Your task to perform on an android device: change the clock display to show seconds Image 0: 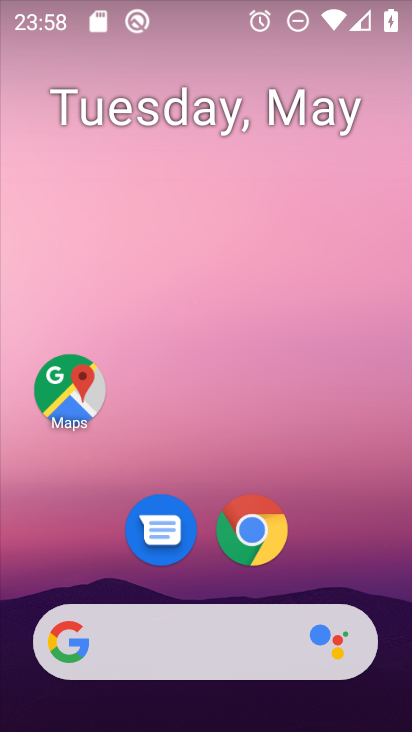
Step 0: drag from (377, 541) to (334, 108)
Your task to perform on an android device: change the clock display to show seconds Image 1: 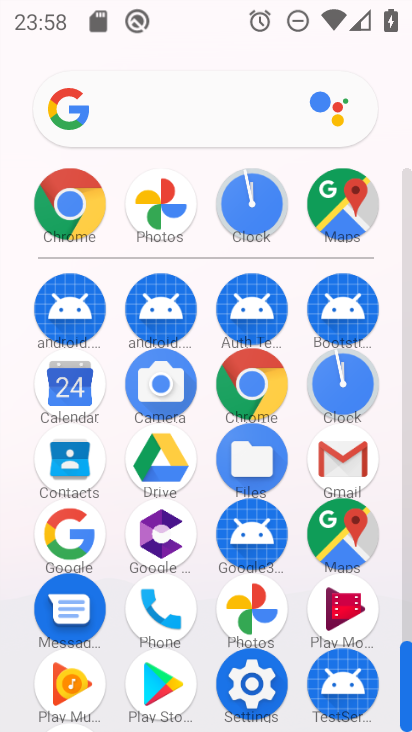
Step 1: click (351, 380)
Your task to perform on an android device: change the clock display to show seconds Image 2: 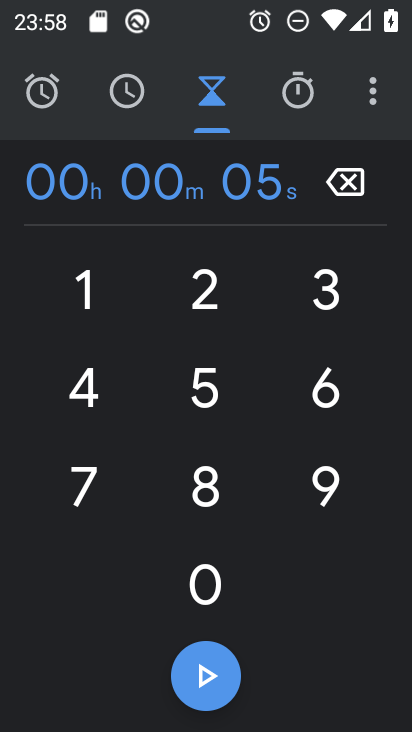
Step 2: click (373, 88)
Your task to perform on an android device: change the clock display to show seconds Image 3: 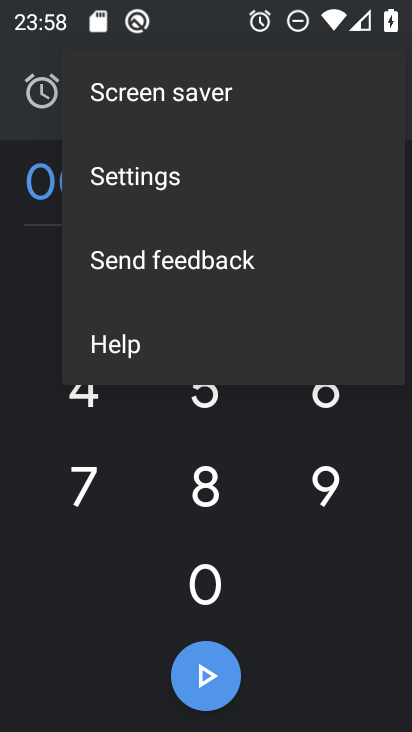
Step 3: click (139, 203)
Your task to perform on an android device: change the clock display to show seconds Image 4: 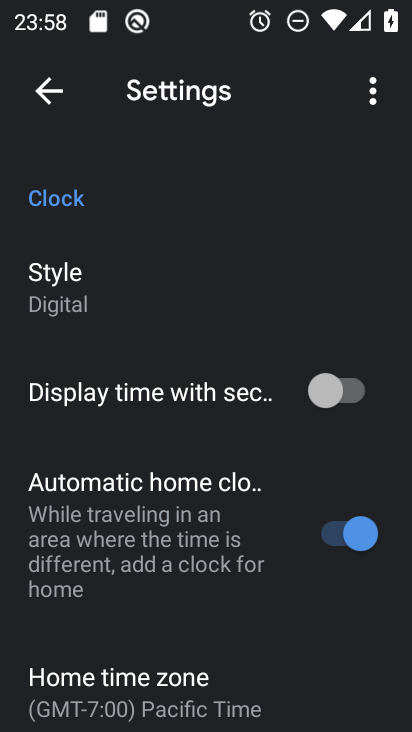
Step 4: click (358, 381)
Your task to perform on an android device: change the clock display to show seconds Image 5: 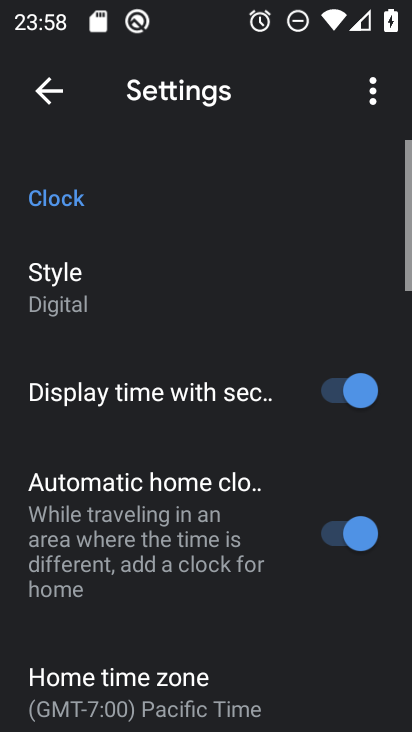
Step 5: task complete